Your task to perform on an android device: Find coffee shops on Maps Image 0: 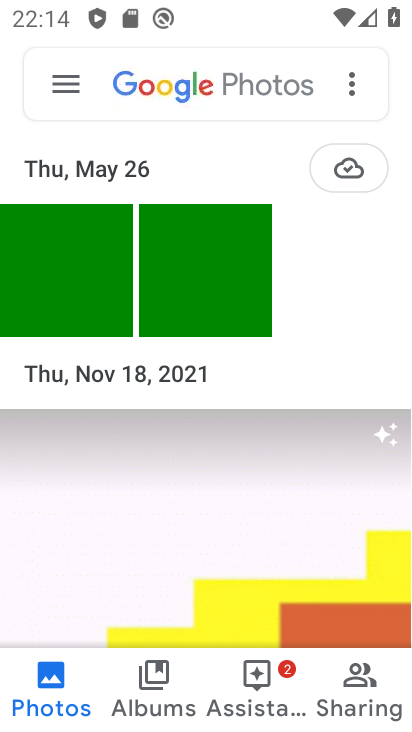
Step 0: press home button
Your task to perform on an android device: Find coffee shops on Maps Image 1: 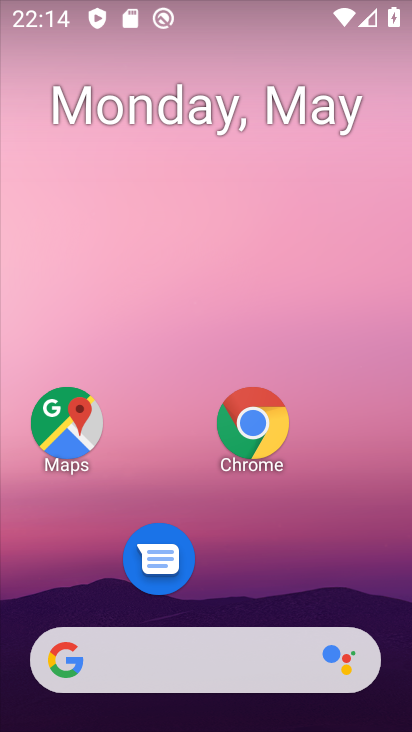
Step 1: click (61, 403)
Your task to perform on an android device: Find coffee shops on Maps Image 2: 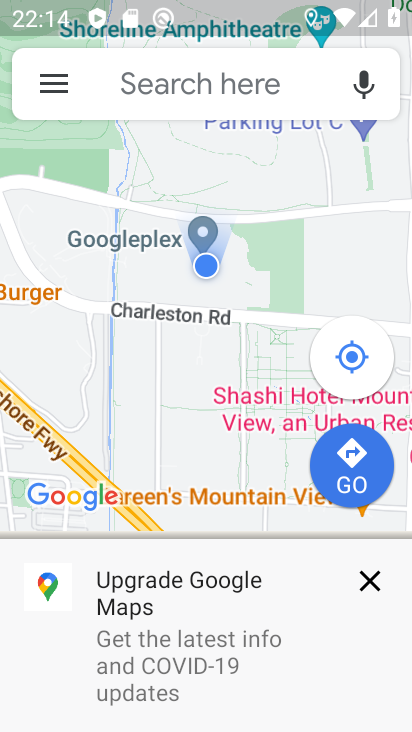
Step 2: click (218, 69)
Your task to perform on an android device: Find coffee shops on Maps Image 3: 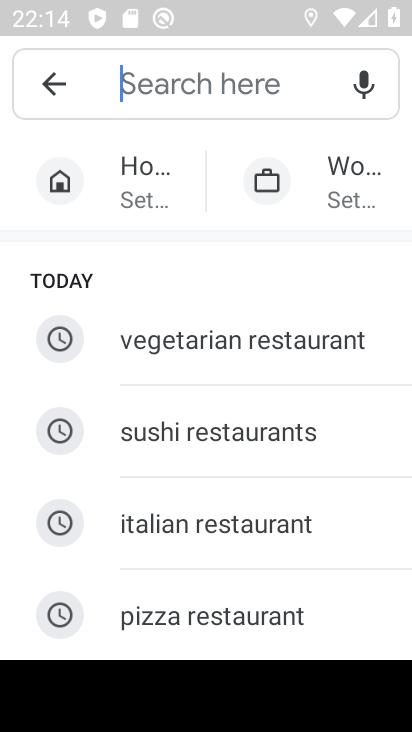
Step 3: type "coffee"
Your task to perform on an android device: Find coffee shops on Maps Image 4: 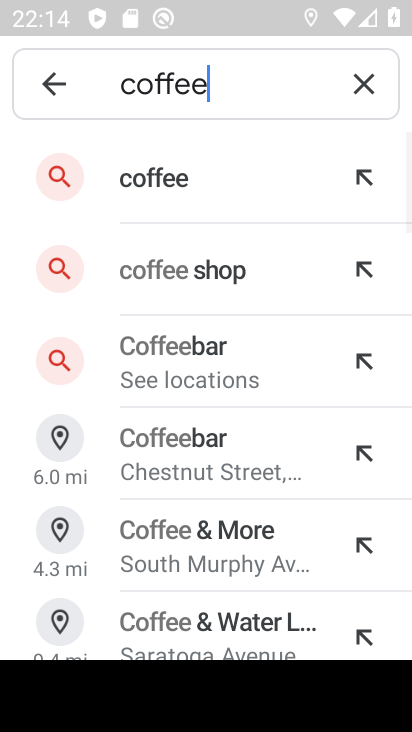
Step 4: click (202, 201)
Your task to perform on an android device: Find coffee shops on Maps Image 5: 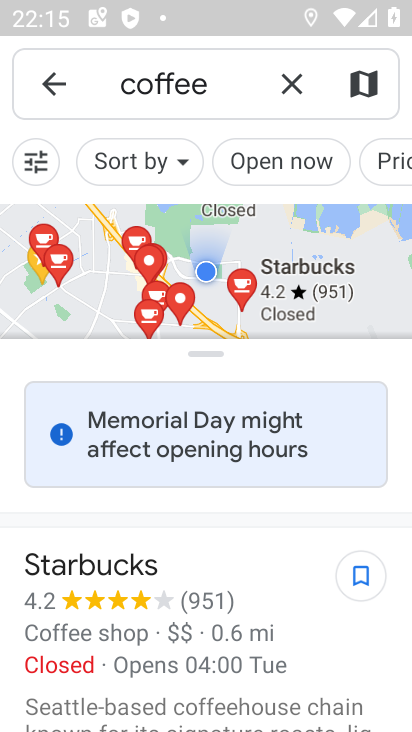
Step 5: task complete